Your task to perform on an android device: Search for Italian restaurants on Maps Image 0: 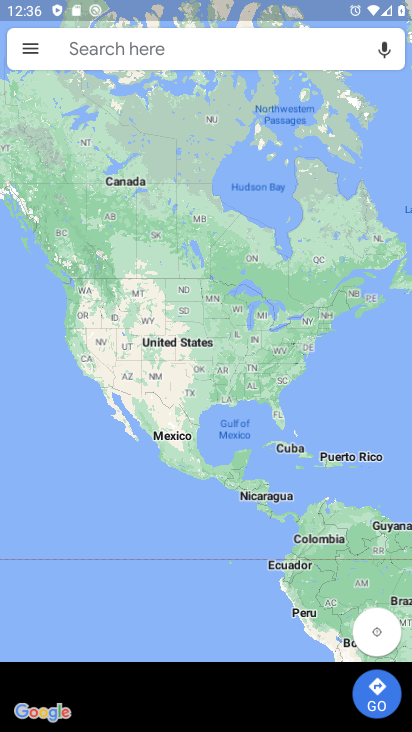
Step 0: press home button
Your task to perform on an android device: Search for Italian restaurants on Maps Image 1: 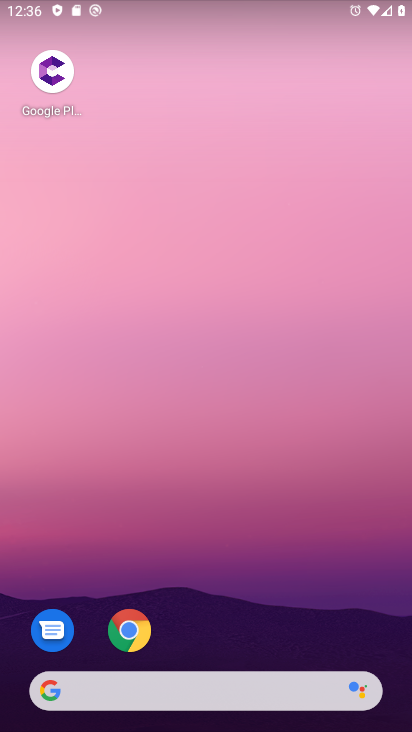
Step 1: press home button
Your task to perform on an android device: Search for Italian restaurants on Maps Image 2: 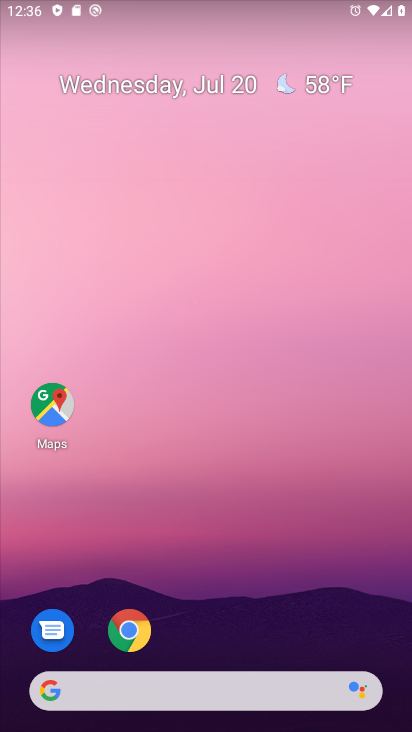
Step 2: click (56, 413)
Your task to perform on an android device: Search for Italian restaurants on Maps Image 3: 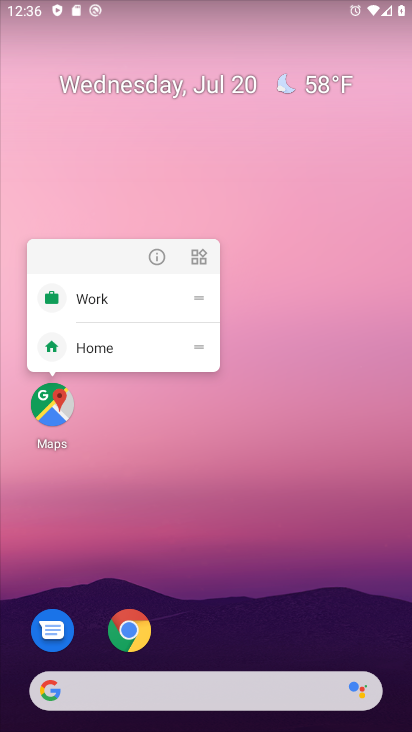
Step 3: click (47, 404)
Your task to perform on an android device: Search for Italian restaurants on Maps Image 4: 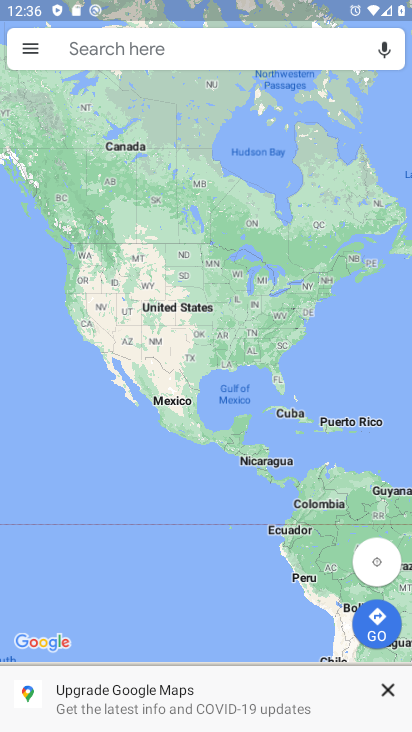
Step 4: click (156, 57)
Your task to perform on an android device: Search for Italian restaurants on Maps Image 5: 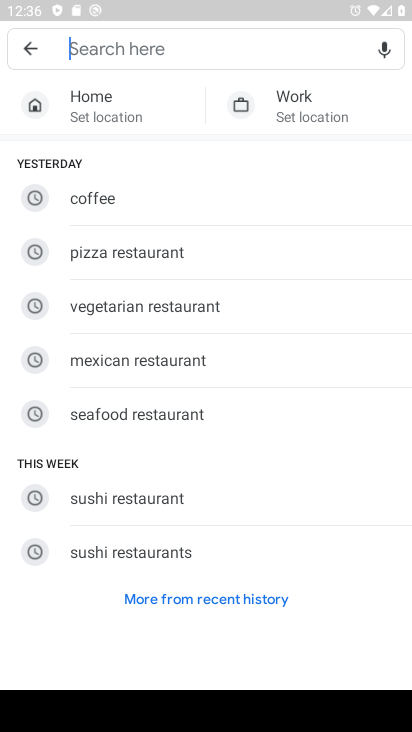
Step 5: type "Italian restaurants"
Your task to perform on an android device: Search for Italian restaurants on Maps Image 6: 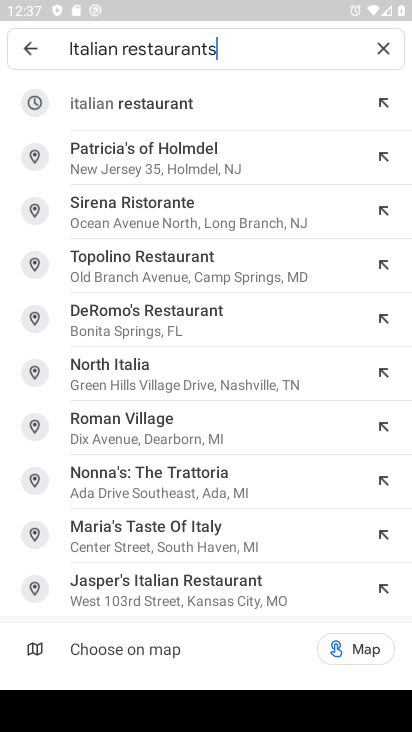
Step 6: click (155, 95)
Your task to perform on an android device: Search for Italian restaurants on Maps Image 7: 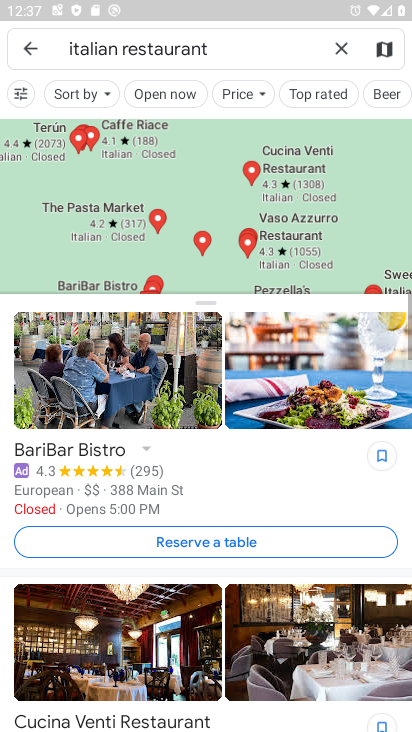
Step 7: task complete